Your task to perform on an android device: turn pop-ups off in chrome Image 0: 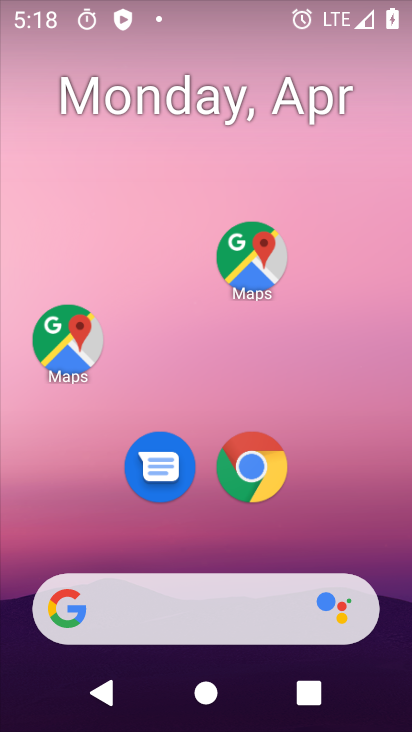
Step 0: drag from (287, 550) to (333, 71)
Your task to perform on an android device: turn pop-ups off in chrome Image 1: 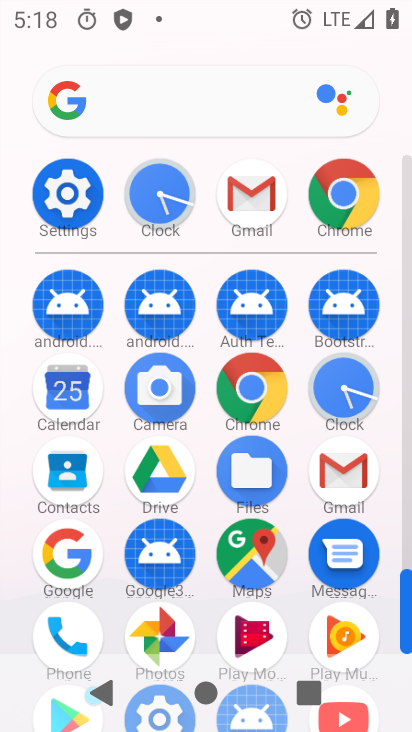
Step 1: click (253, 396)
Your task to perform on an android device: turn pop-ups off in chrome Image 2: 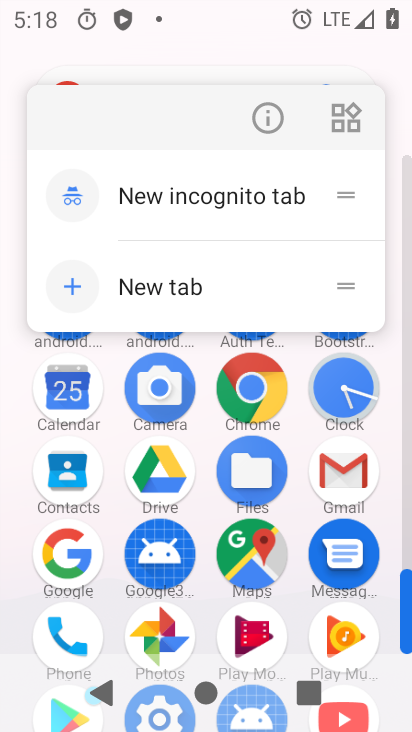
Step 2: click (253, 396)
Your task to perform on an android device: turn pop-ups off in chrome Image 3: 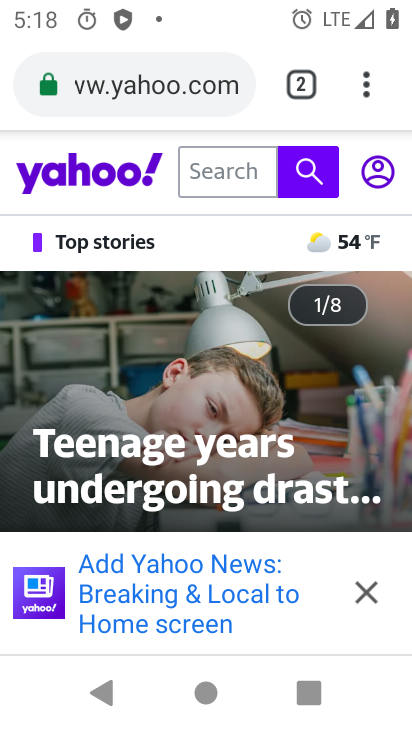
Step 3: click (358, 83)
Your task to perform on an android device: turn pop-ups off in chrome Image 4: 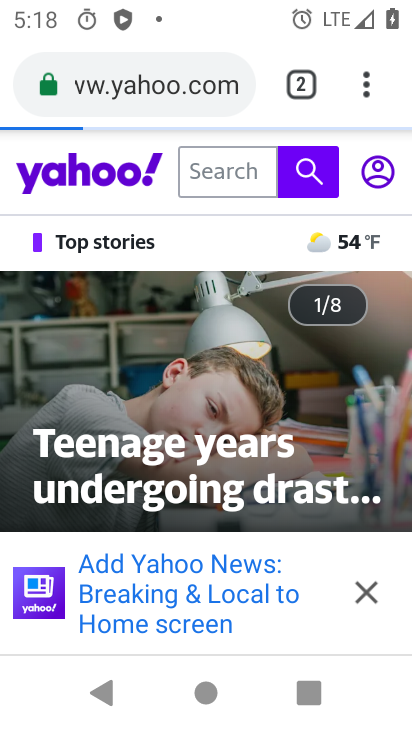
Step 4: drag from (356, 103) to (189, 528)
Your task to perform on an android device: turn pop-ups off in chrome Image 5: 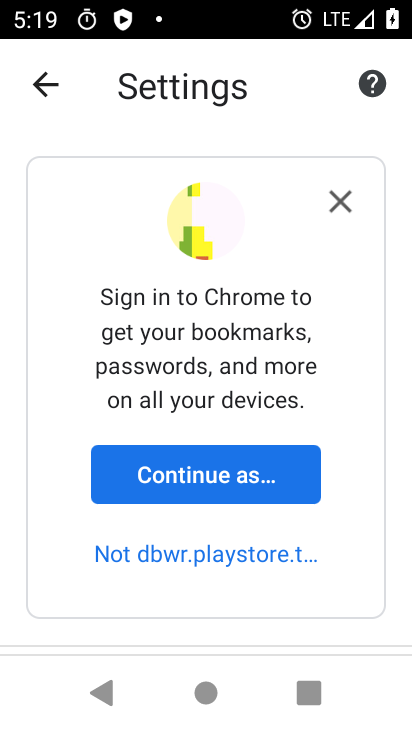
Step 5: drag from (270, 594) to (233, 96)
Your task to perform on an android device: turn pop-ups off in chrome Image 6: 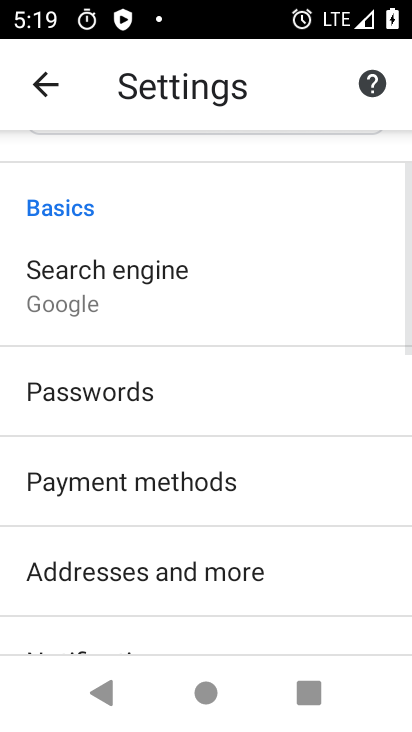
Step 6: drag from (281, 582) to (229, 180)
Your task to perform on an android device: turn pop-ups off in chrome Image 7: 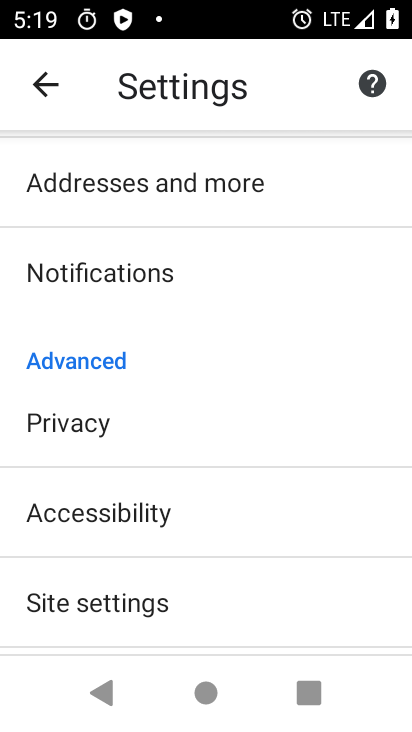
Step 7: drag from (309, 641) to (230, 105)
Your task to perform on an android device: turn pop-ups off in chrome Image 8: 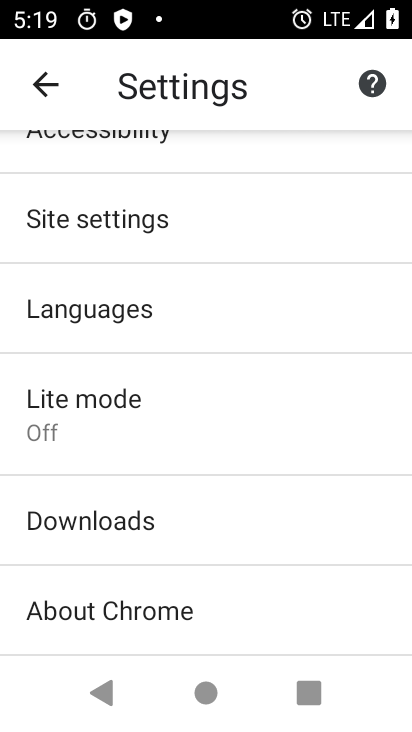
Step 8: click (161, 208)
Your task to perform on an android device: turn pop-ups off in chrome Image 9: 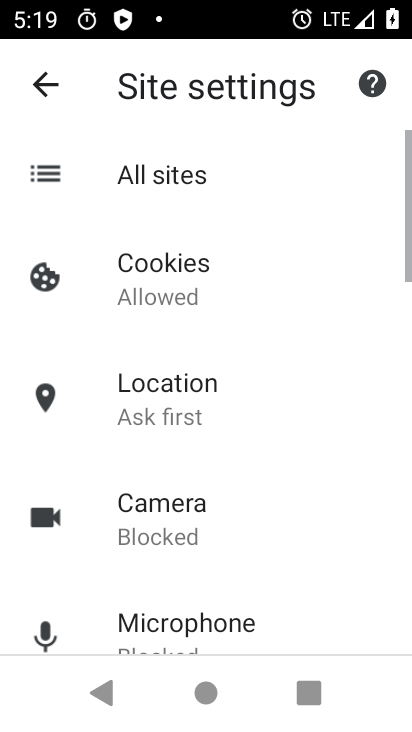
Step 9: drag from (312, 648) to (296, 97)
Your task to perform on an android device: turn pop-ups off in chrome Image 10: 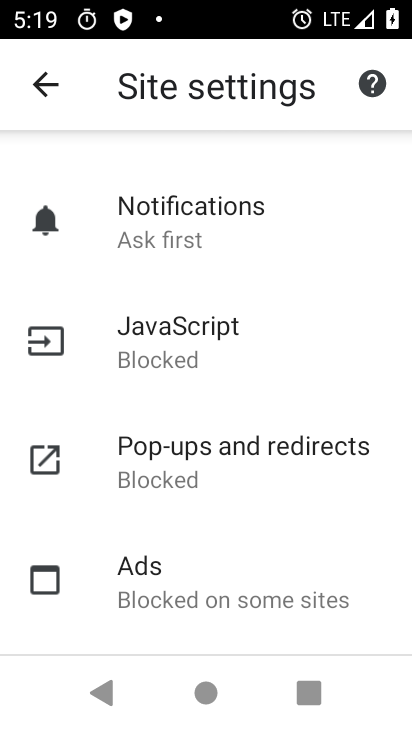
Step 10: click (295, 454)
Your task to perform on an android device: turn pop-ups off in chrome Image 11: 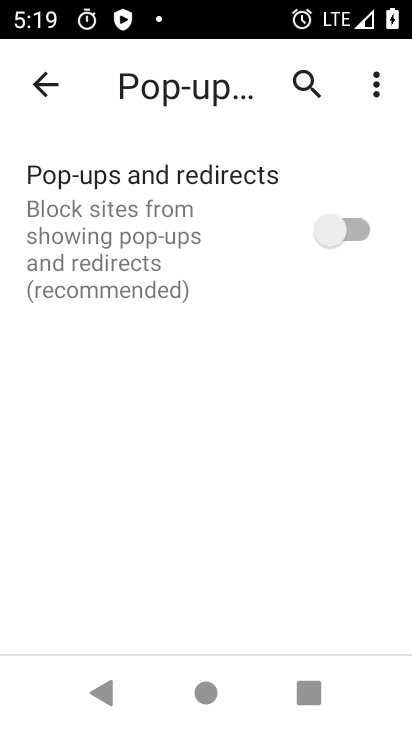
Step 11: task complete